Your task to perform on an android device: move a message to another label in the gmail app Image 0: 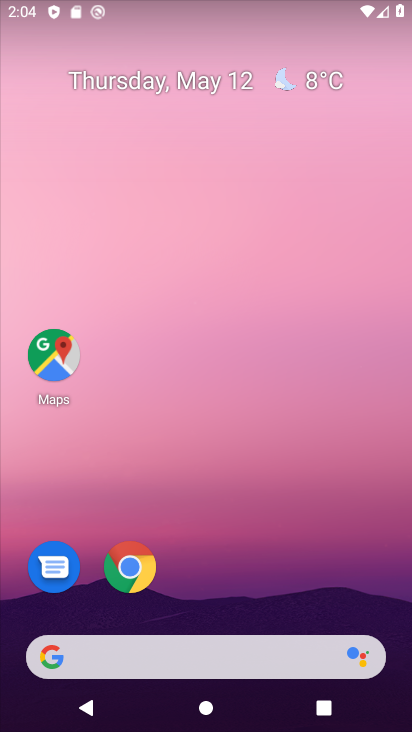
Step 0: drag from (245, 534) to (249, 246)
Your task to perform on an android device: move a message to another label in the gmail app Image 1: 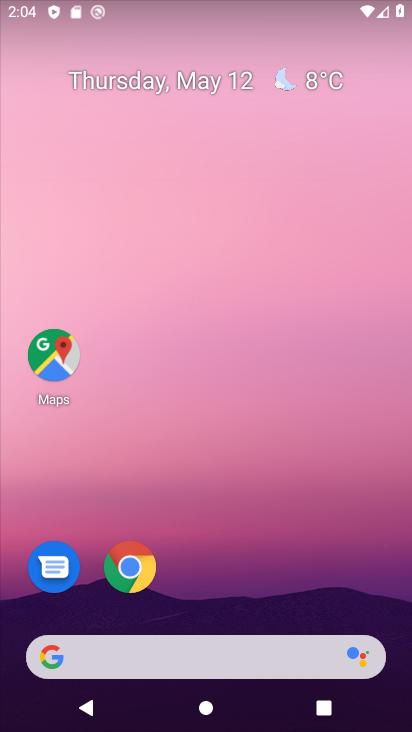
Step 1: drag from (211, 569) to (218, 109)
Your task to perform on an android device: move a message to another label in the gmail app Image 2: 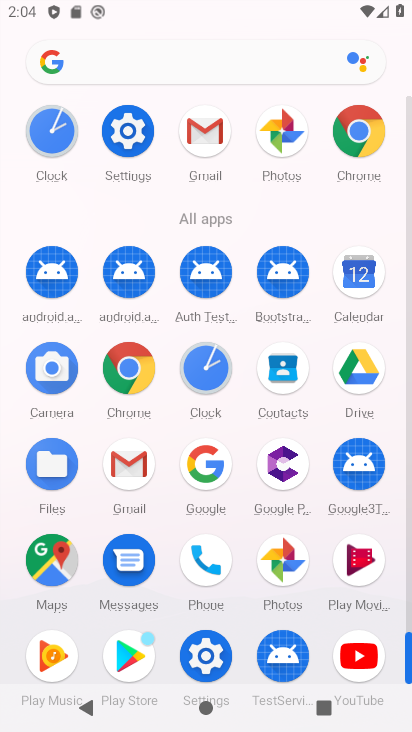
Step 2: click (119, 474)
Your task to perform on an android device: move a message to another label in the gmail app Image 3: 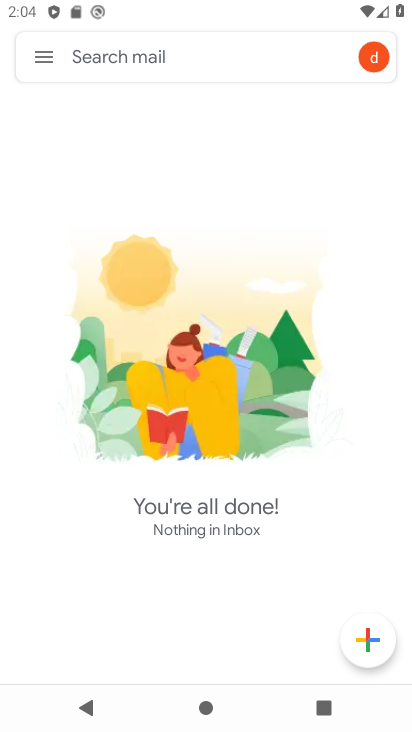
Step 3: click (51, 60)
Your task to perform on an android device: move a message to another label in the gmail app Image 4: 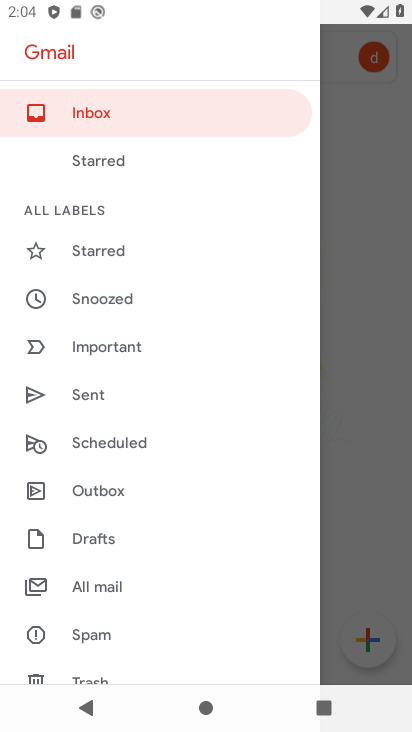
Step 4: click (85, 121)
Your task to perform on an android device: move a message to another label in the gmail app Image 5: 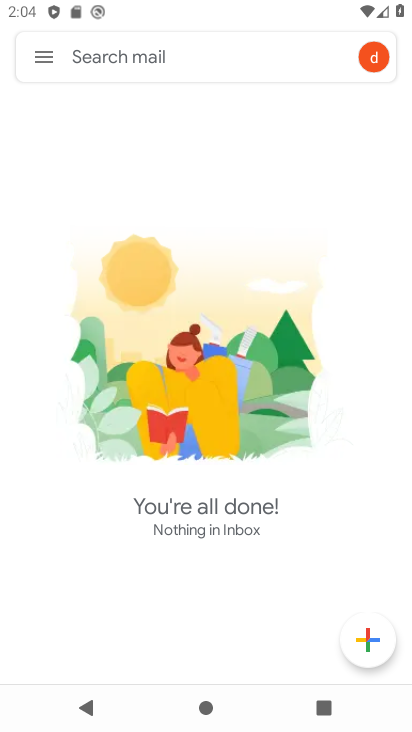
Step 5: task complete